Your task to perform on an android device: allow cookies in the chrome app Image 0: 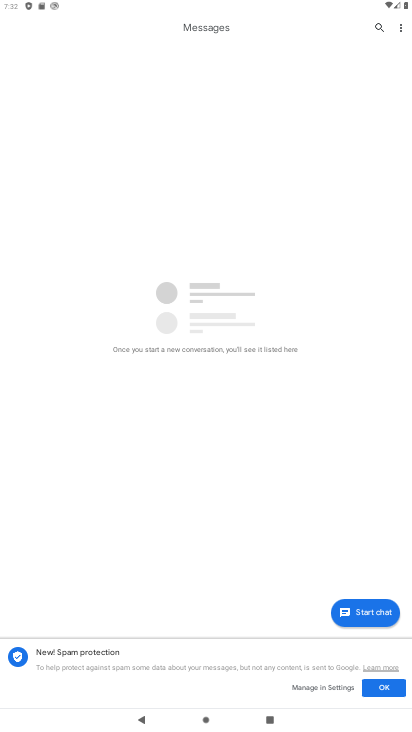
Step 0: press home button
Your task to perform on an android device: allow cookies in the chrome app Image 1: 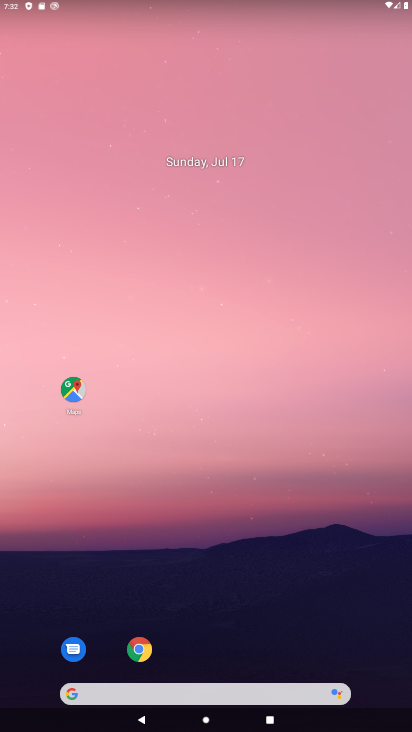
Step 1: click (141, 652)
Your task to perform on an android device: allow cookies in the chrome app Image 2: 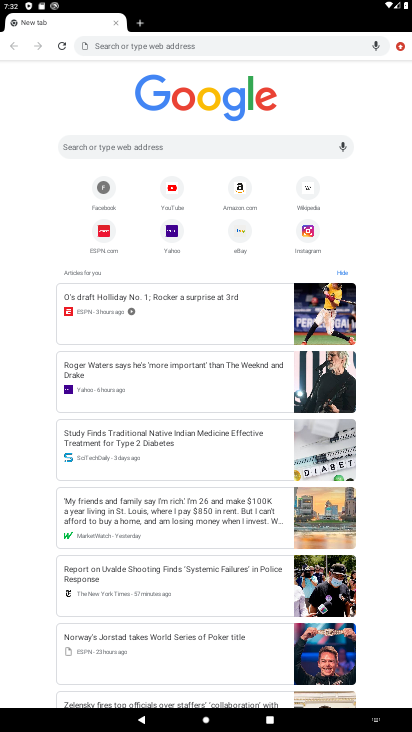
Step 2: click (397, 49)
Your task to perform on an android device: allow cookies in the chrome app Image 3: 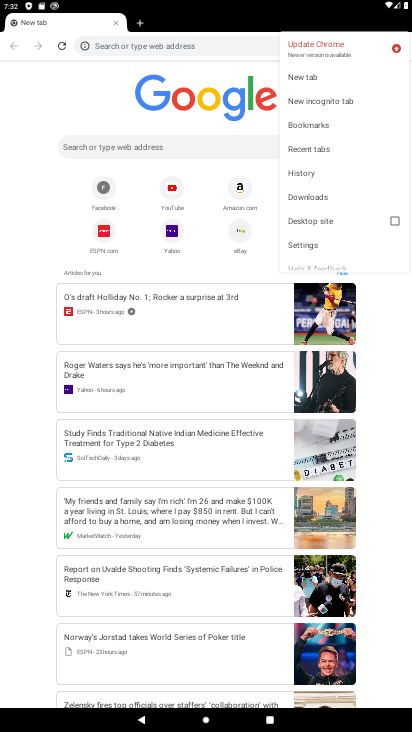
Step 3: click (308, 248)
Your task to perform on an android device: allow cookies in the chrome app Image 4: 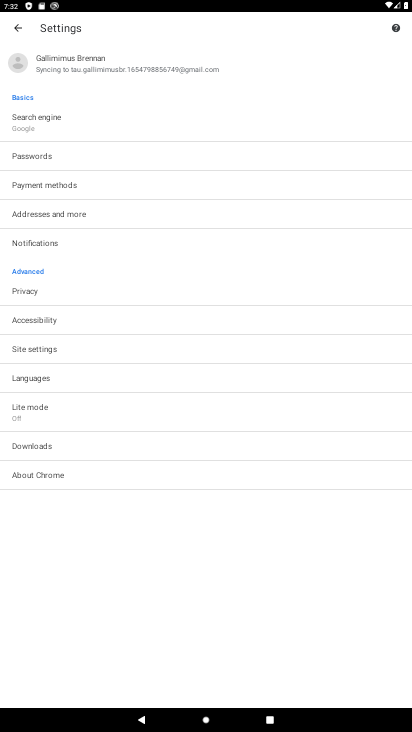
Step 4: click (37, 353)
Your task to perform on an android device: allow cookies in the chrome app Image 5: 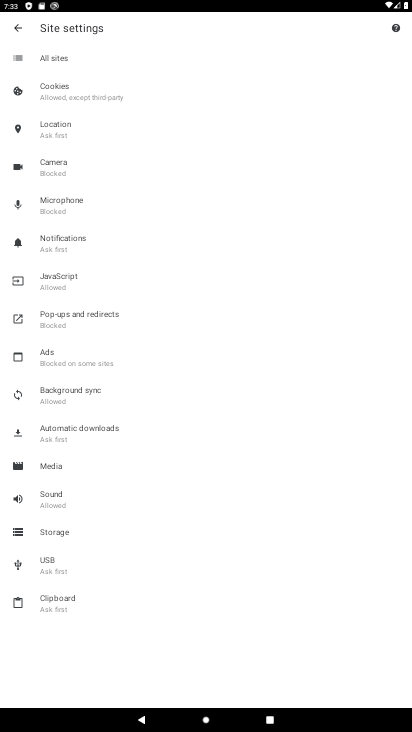
Step 5: click (89, 92)
Your task to perform on an android device: allow cookies in the chrome app Image 6: 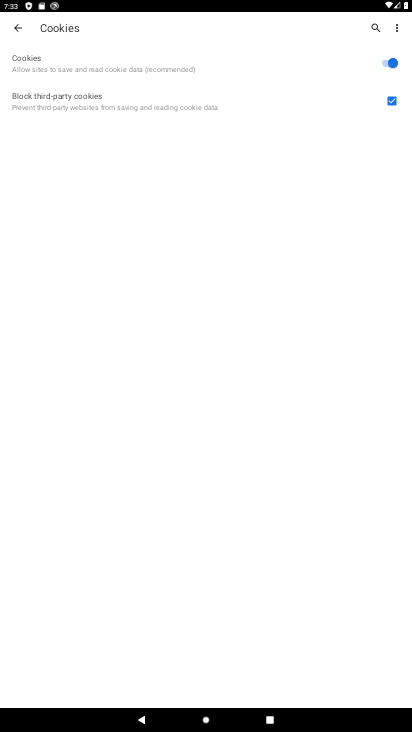
Step 6: task complete